Your task to perform on an android device: Search for jbl flip 4 on costco.com, select the first entry, add it to the cart, then select checkout. Image 0: 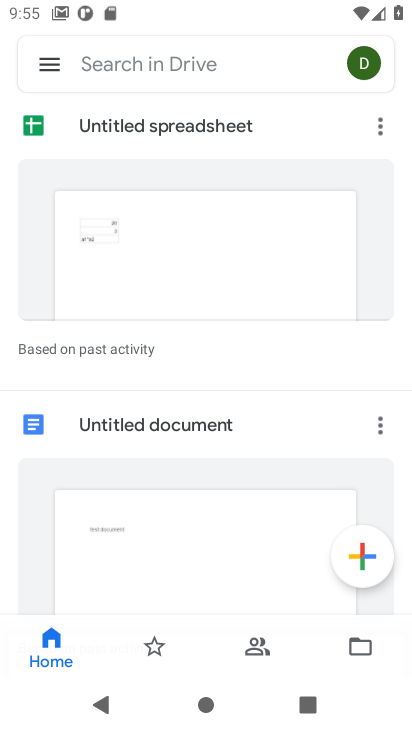
Step 0: press home button
Your task to perform on an android device: Search for jbl flip 4 on costco.com, select the first entry, add it to the cart, then select checkout. Image 1: 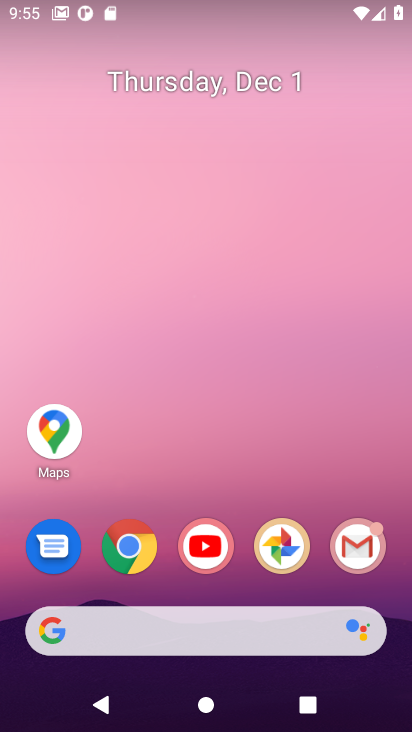
Step 1: click (126, 547)
Your task to perform on an android device: Search for jbl flip 4 on costco.com, select the first entry, add it to the cart, then select checkout. Image 2: 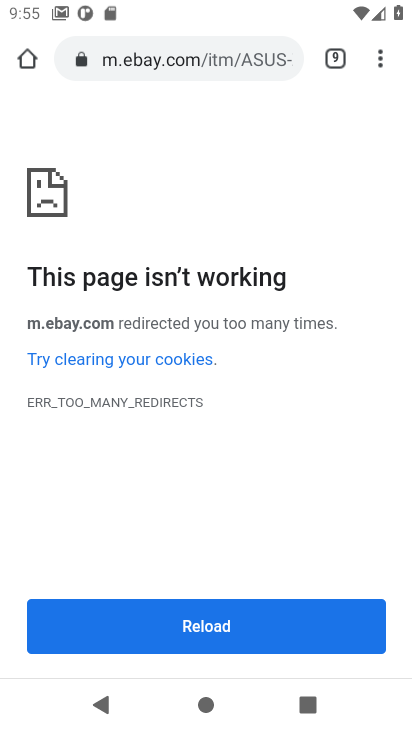
Step 2: click (165, 56)
Your task to perform on an android device: Search for jbl flip 4 on costco.com, select the first entry, add it to the cart, then select checkout. Image 3: 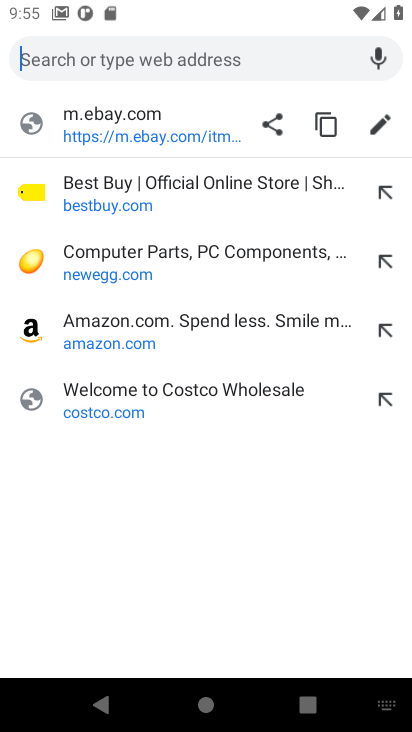
Step 3: click (96, 404)
Your task to perform on an android device: Search for jbl flip 4 on costco.com, select the first entry, add it to the cart, then select checkout. Image 4: 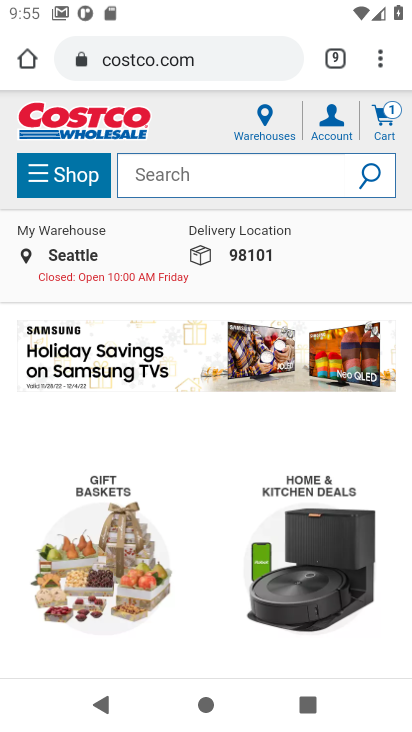
Step 4: click (160, 179)
Your task to perform on an android device: Search for jbl flip 4 on costco.com, select the first entry, add it to the cart, then select checkout. Image 5: 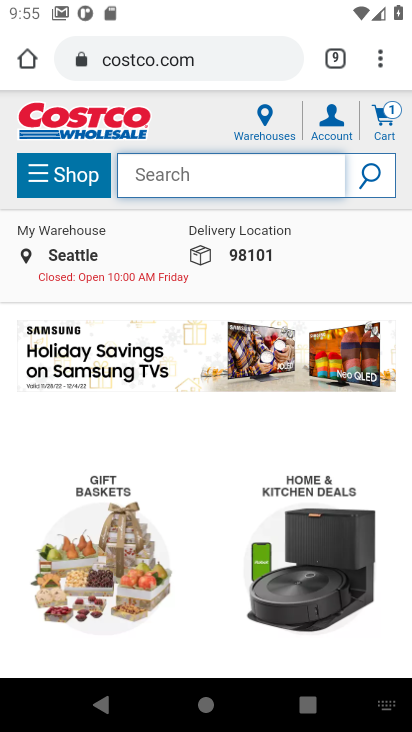
Step 5: type " jbl flip 4"
Your task to perform on an android device: Search for jbl flip 4 on costco.com, select the first entry, add it to the cart, then select checkout. Image 6: 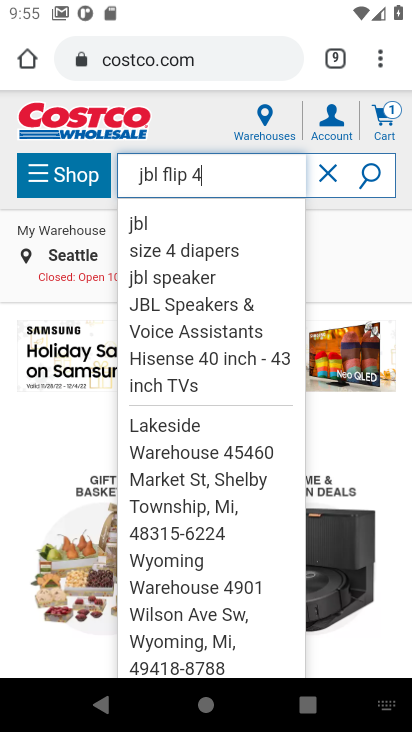
Step 6: click (363, 180)
Your task to perform on an android device: Search for jbl flip 4 on costco.com, select the first entry, add it to the cart, then select checkout. Image 7: 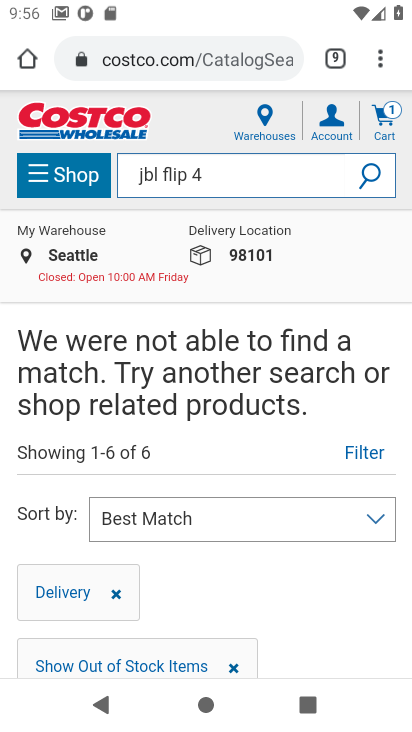
Step 7: task complete